Your task to perform on an android device: change text size in settings app Image 0: 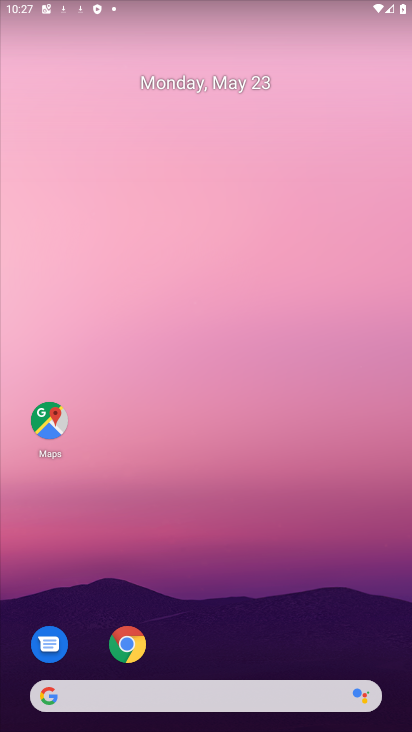
Step 0: drag from (240, 708) to (203, 136)
Your task to perform on an android device: change text size in settings app Image 1: 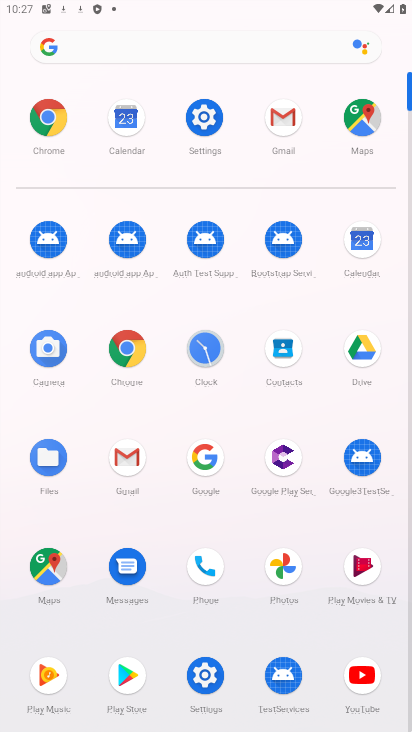
Step 1: click (218, 686)
Your task to perform on an android device: change text size in settings app Image 2: 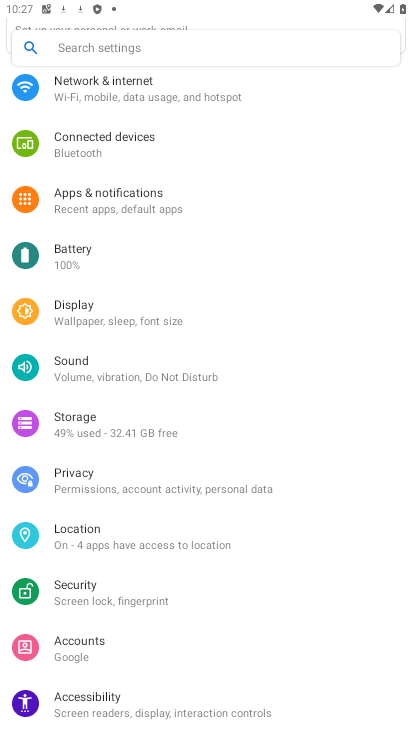
Step 2: click (122, 53)
Your task to perform on an android device: change text size in settings app Image 3: 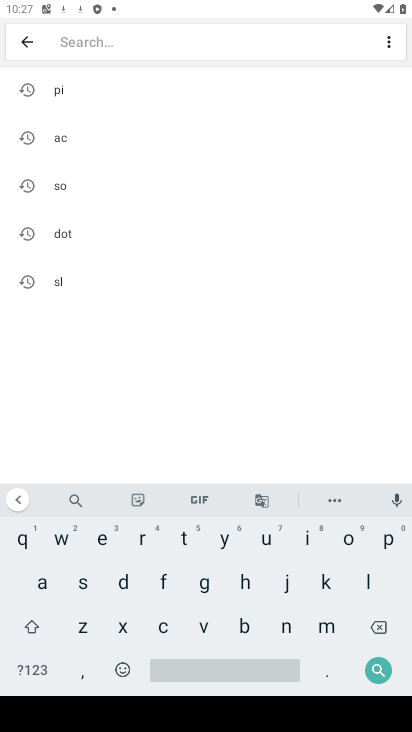
Step 3: click (87, 587)
Your task to perform on an android device: change text size in settings app Image 4: 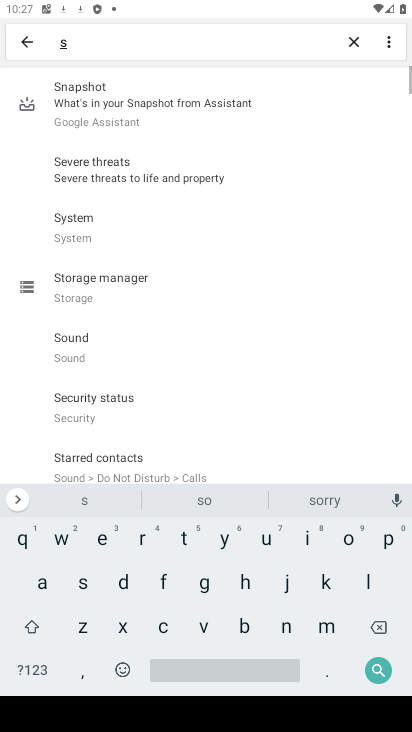
Step 4: click (304, 529)
Your task to perform on an android device: change text size in settings app Image 5: 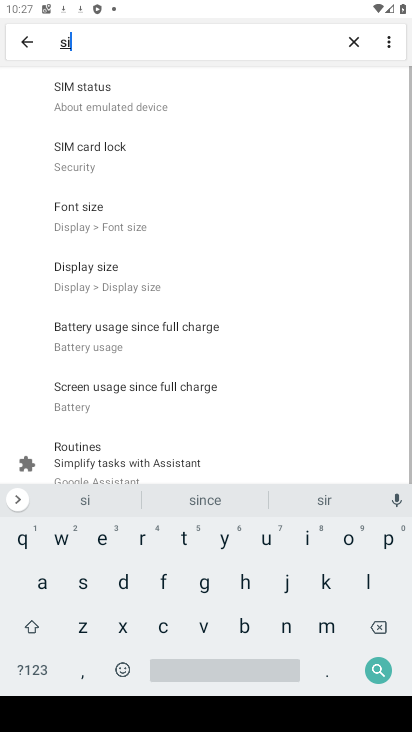
Step 5: click (81, 617)
Your task to perform on an android device: change text size in settings app Image 6: 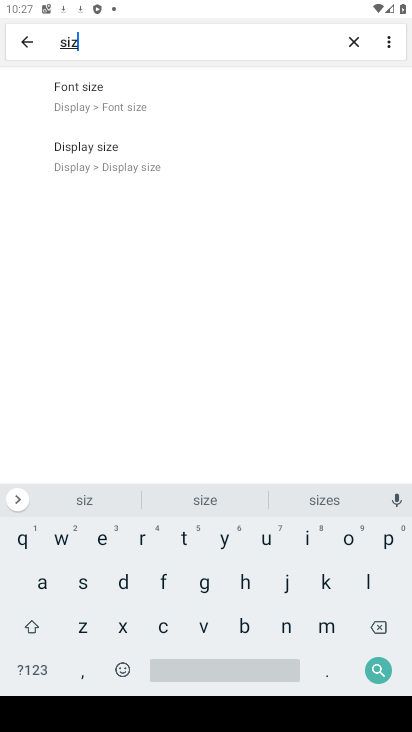
Step 6: click (141, 109)
Your task to perform on an android device: change text size in settings app Image 7: 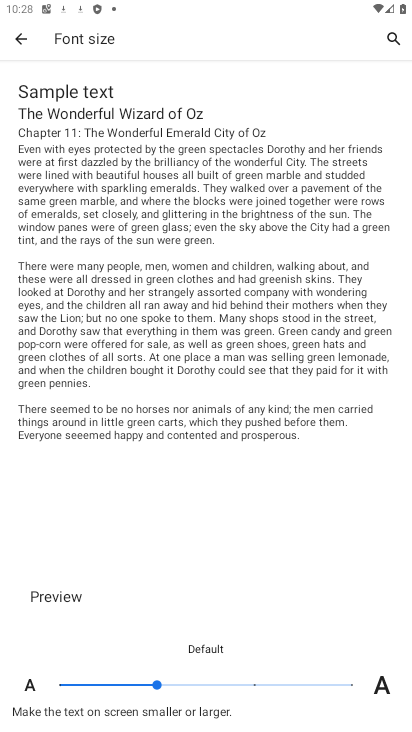
Step 7: task complete